Your task to perform on an android device: Open my contact list Image 0: 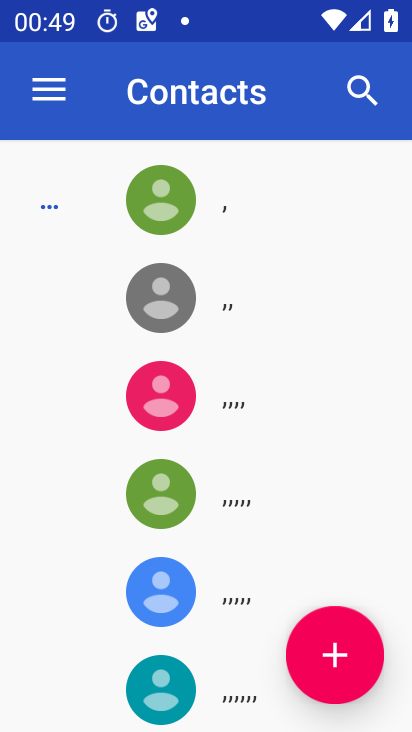
Step 0: task complete